Your task to perform on an android device: set the stopwatch Image 0: 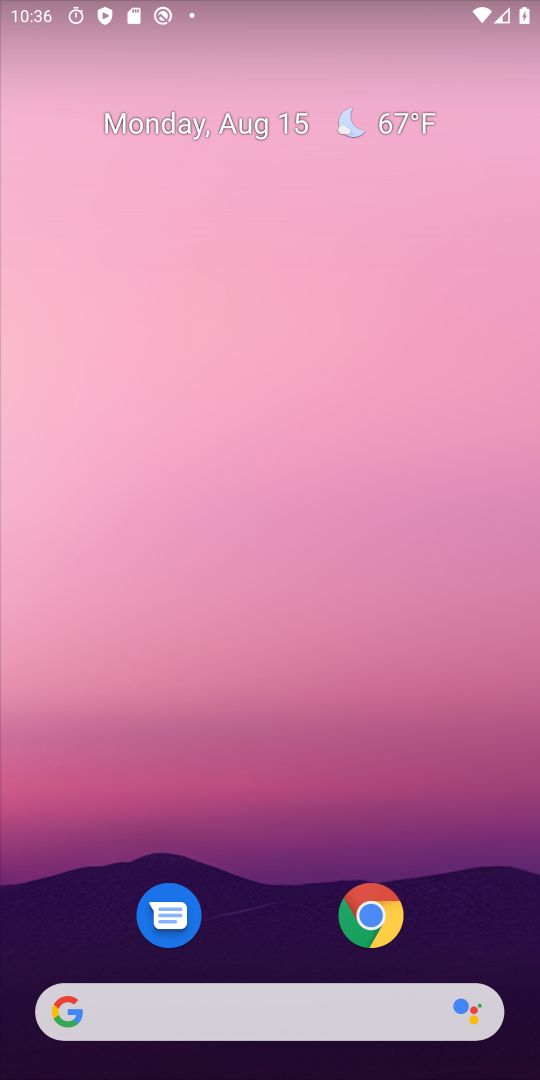
Step 0: drag from (218, 634) to (361, 701)
Your task to perform on an android device: set the stopwatch Image 1: 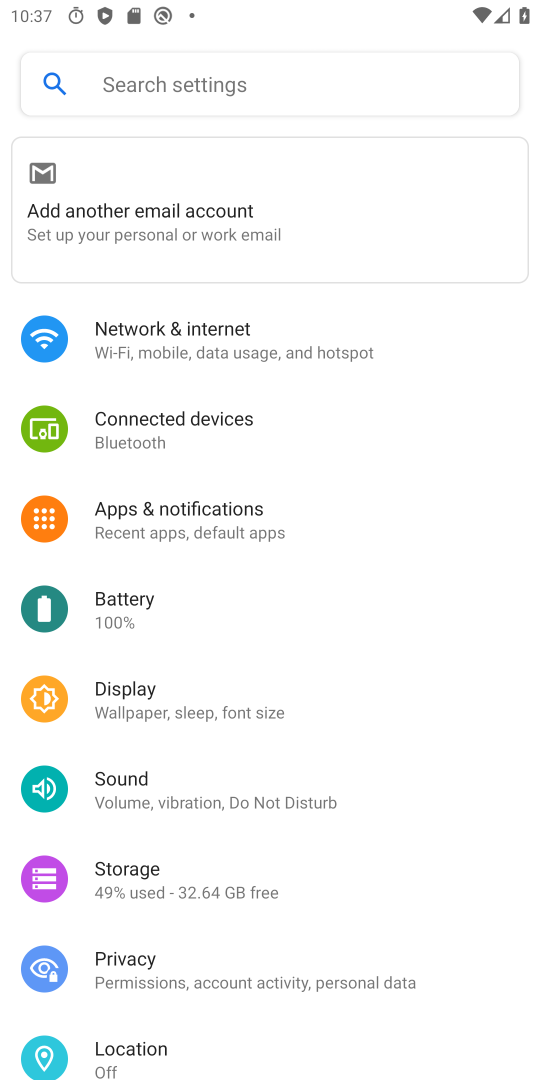
Step 1: press home button
Your task to perform on an android device: set the stopwatch Image 2: 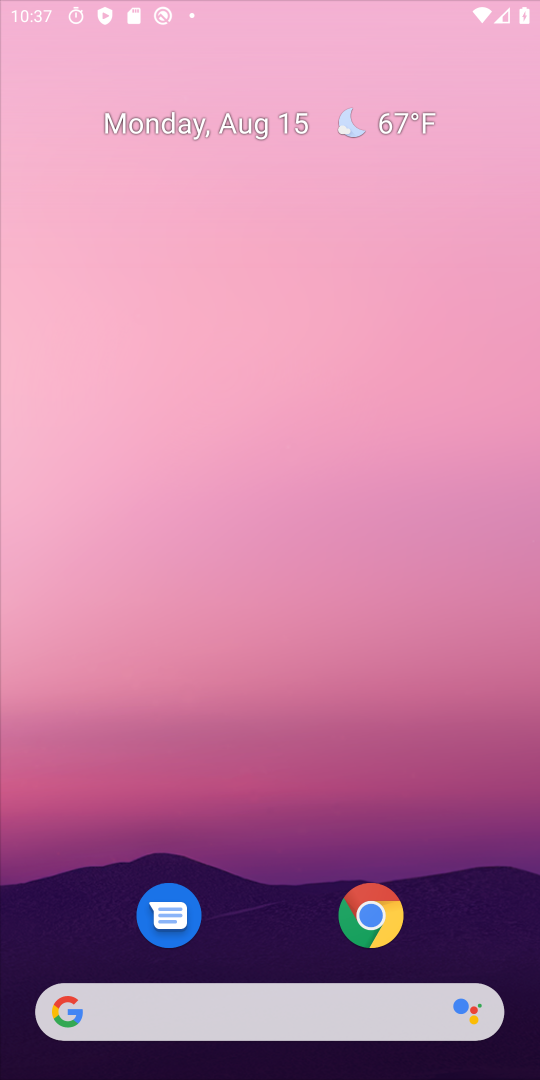
Step 2: click (455, 540)
Your task to perform on an android device: set the stopwatch Image 3: 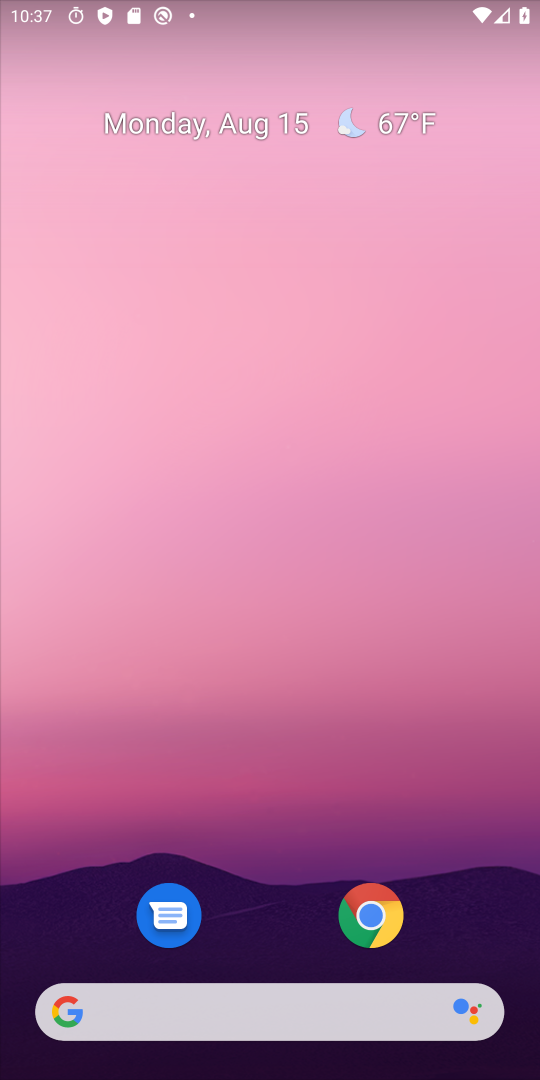
Step 3: drag from (495, 765) to (380, 18)
Your task to perform on an android device: set the stopwatch Image 4: 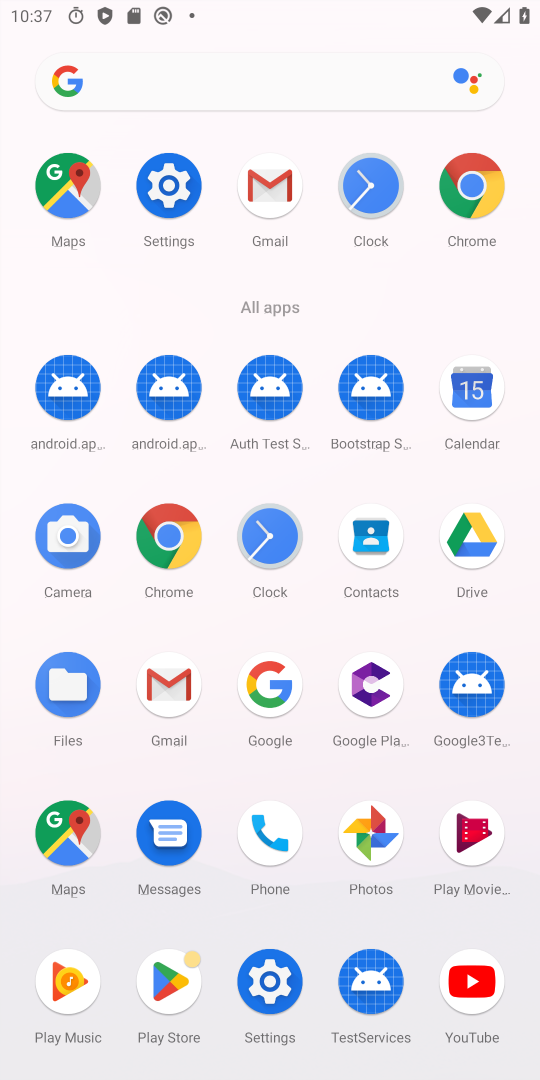
Step 4: click (357, 216)
Your task to perform on an android device: set the stopwatch Image 5: 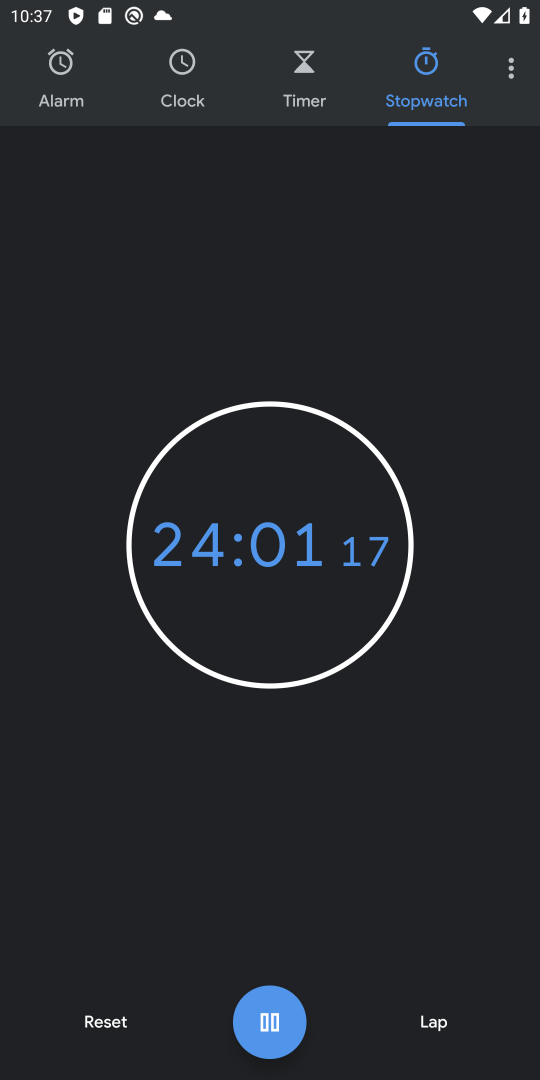
Step 5: click (297, 469)
Your task to perform on an android device: set the stopwatch Image 6: 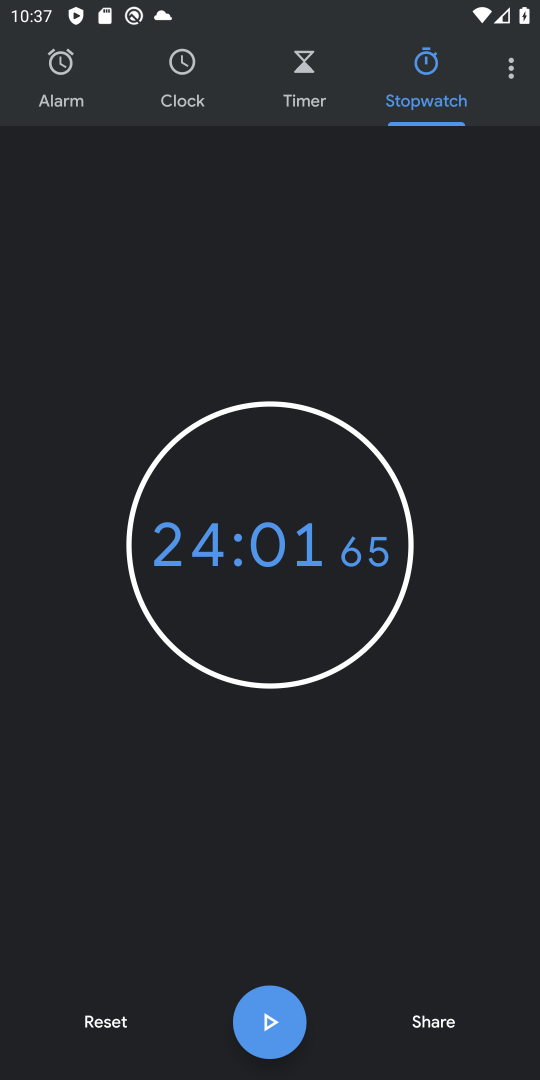
Step 6: click (106, 1021)
Your task to perform on an android device: set the stopwatch Image 7: 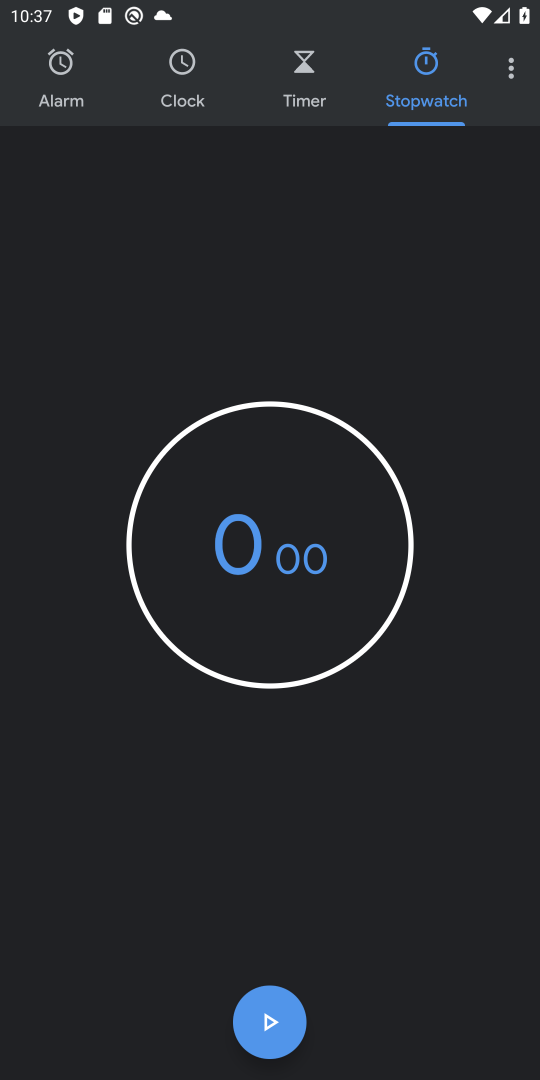
Step 7: task complete